Your task to perform on an android device: search for starred emails in the gmail app Image 0: 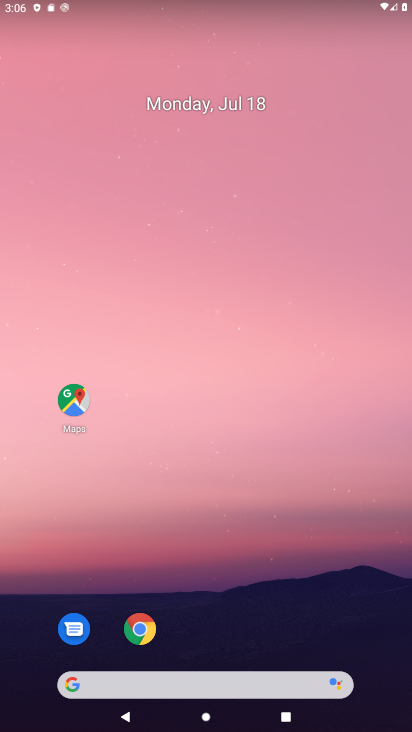
Step 0: drag from (386, 697) to (283, 107)
Your task to perform on an android device: search for starred emails in the gmail app Image 1: 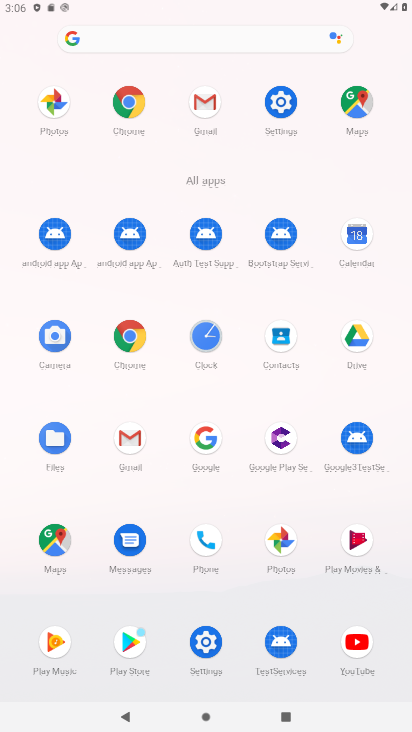
Step 1: click (130, 435)
Your task to perform on an android device: search for starred emails in the gmail app Image 2: 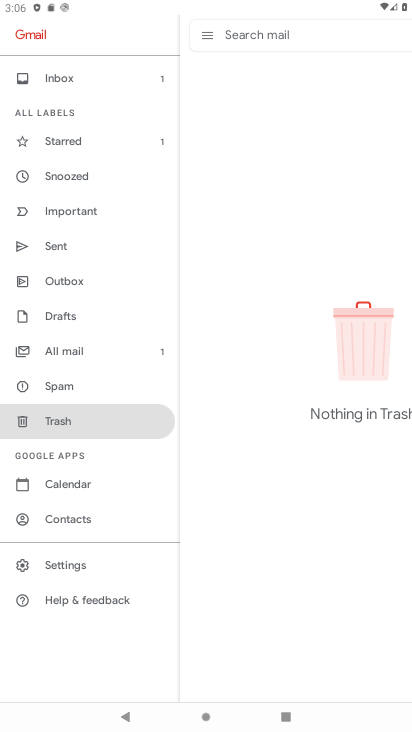
Step 2: click (66, 144)
Your task to perform on an android device: search for starred emails in the gmail app Image 3: 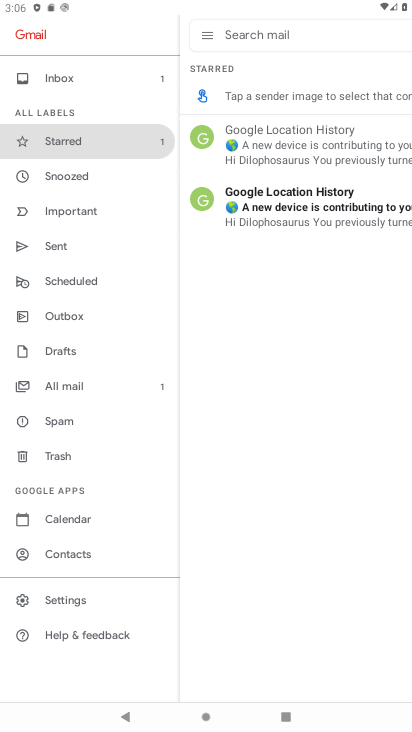
Step 3: task complete